Your task to perform on an android device: turn off data saver in the chrome app Image 0: 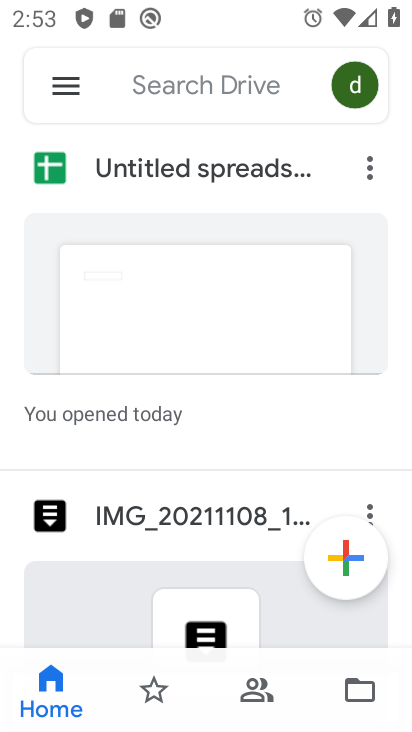
Step 0: press home button
Your task to perform on an android device: turn off data saver in the chrome app Image 1: 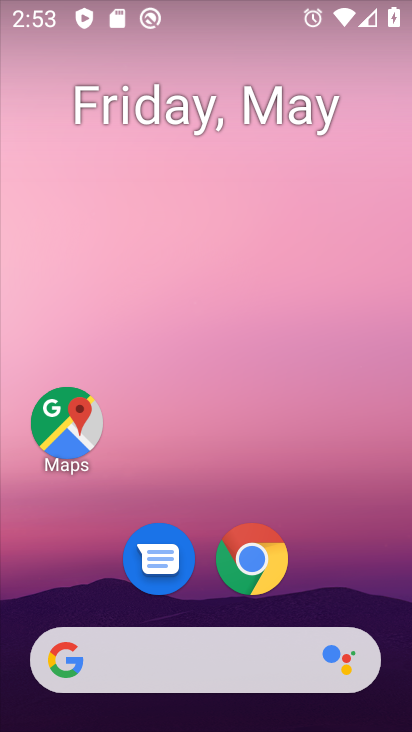
Step 1: click (259, 561)
Your task to perform on an android device: turn off data saver in the chrome app Image 2: 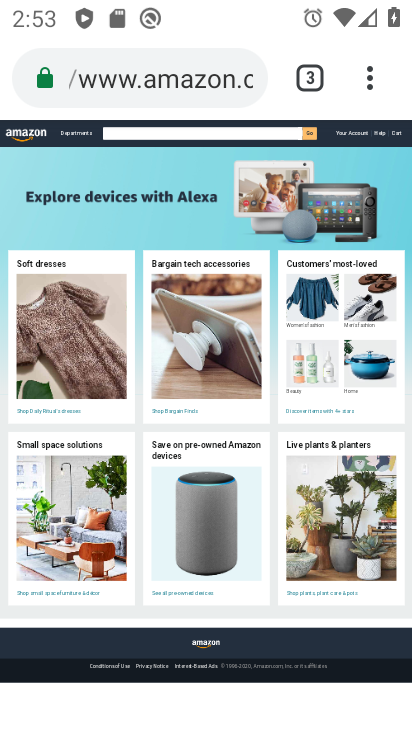
Step 2: click (366, 90)
Your task to perform on an android device: turn off data saver in the chrome app Image 3: 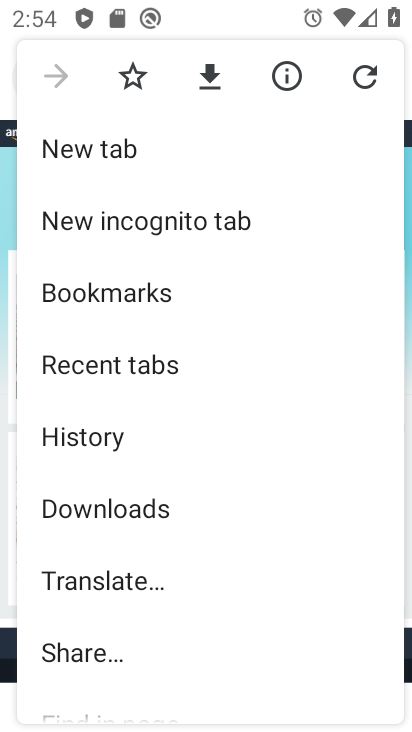
Step 3: drag from (290, 529) to (231, 292)
Your task to perform on an android device: turn off data saver in the chrome app Image 4: 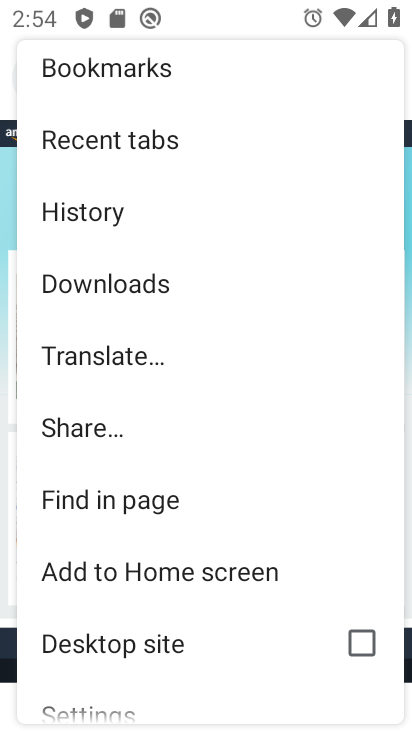
Step 4: click (156, 709)
Your task to perform on an android device: turn off data saver in the chrome app Image 5: 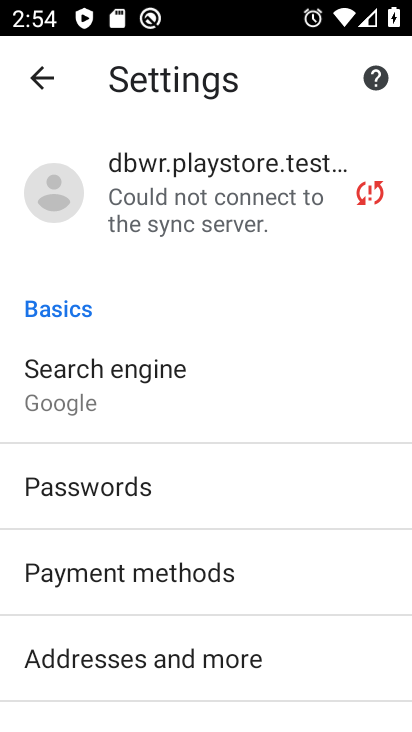
Step 5: drag from (123, 638) to (98, 275)
Your task to perform on an android device: turn off data saver in the chrome app Image 6: 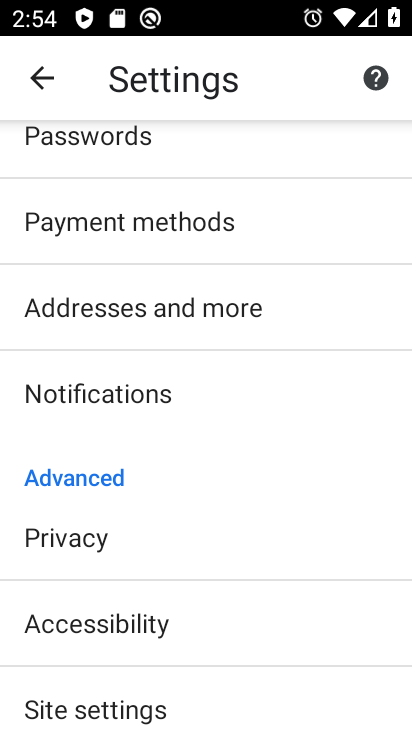
Step 6: drag from (234, 664) to (178, 64)
Your task to perform on an android device: turn off data saver in the chrome app Image 7: 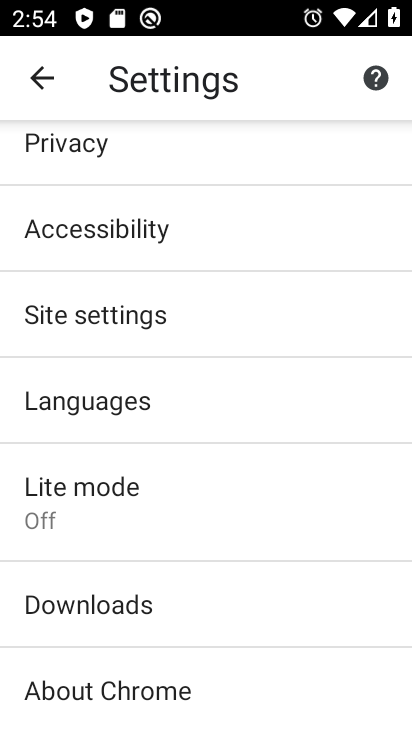
Step 7: click (275, 581)
Your task to perform on an android device: turn off data saver in the chrome app Image 8: 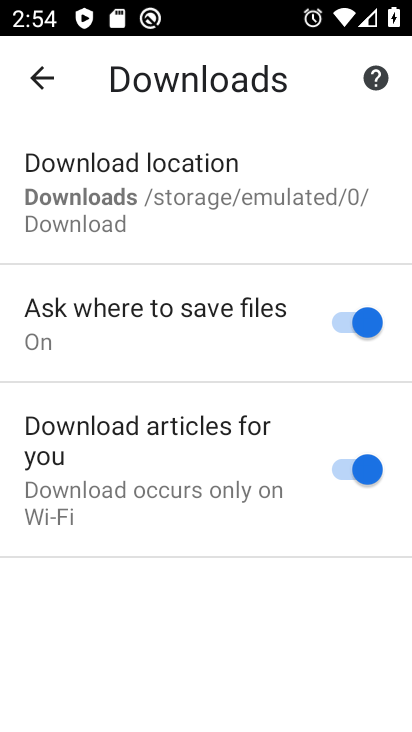
Step 8: click (45, 78)
Your task to perform on an android device: turn off data saver in the chrome app Image 9: 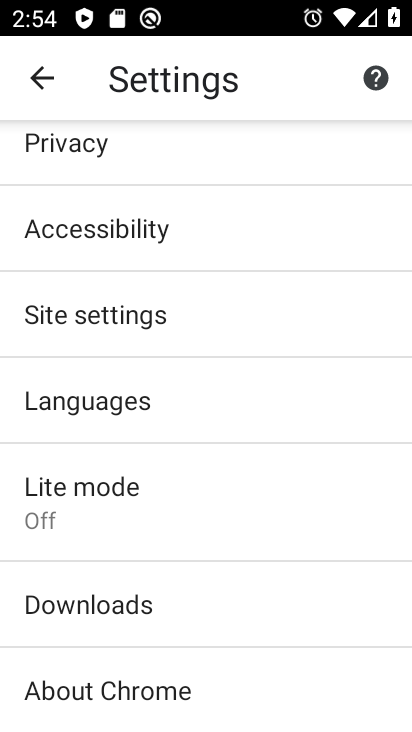
Step 9: click (186, 522)
Your task to perform on an android device: turn off data saver in the chrome app Image 10: 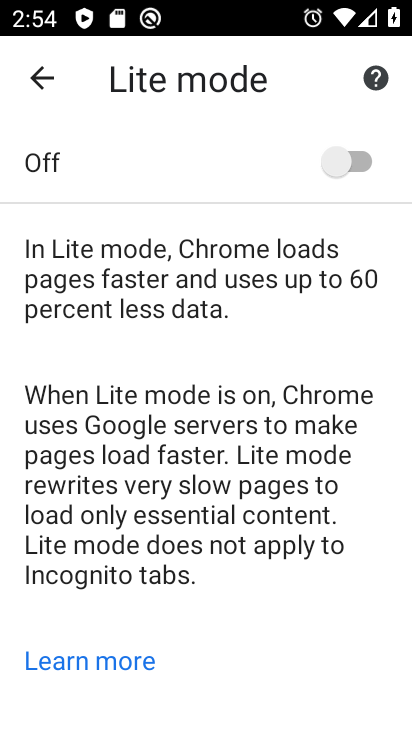
Step 10: task complete